Your task to perform on an android device: Open the phone app and click the voicemail tab. Image 0: 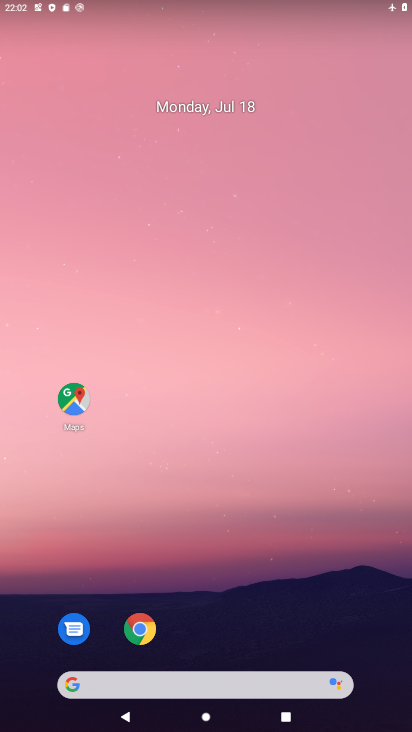
Step 0: drag from (303, 647) to (243, 271)
Your task to perform on an android device: Open the phone app and click the voicemail tab. Image 1: 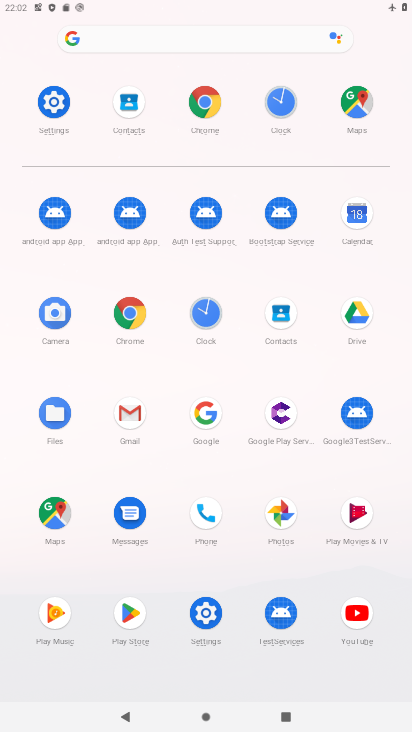
Step 1: click (207, 514)
Your task to perform on an android device: Open the phone app and click the voicemail tab. Image 2: 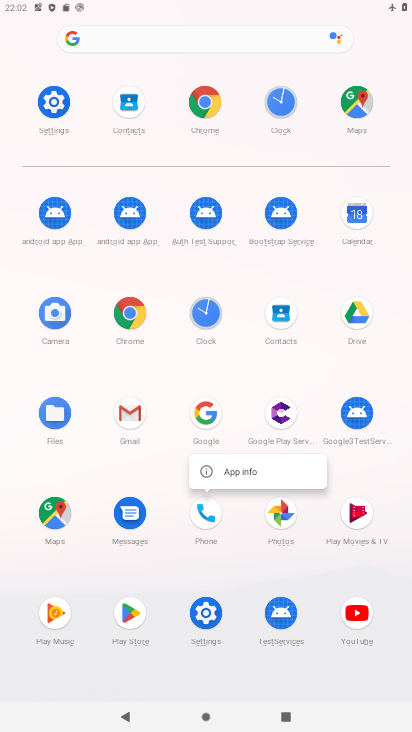
Step 2: click (198, 510)
Your task to perform on an android device: Open the phone app and click the voicemail tab. Image 3: 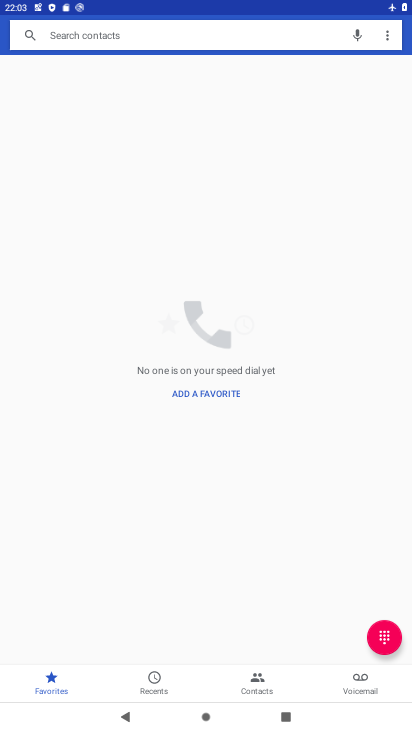
Step 3: click (357, 679)
Your task to perform on an android device: Open the phone app and click the voicemail tab. Image 4: 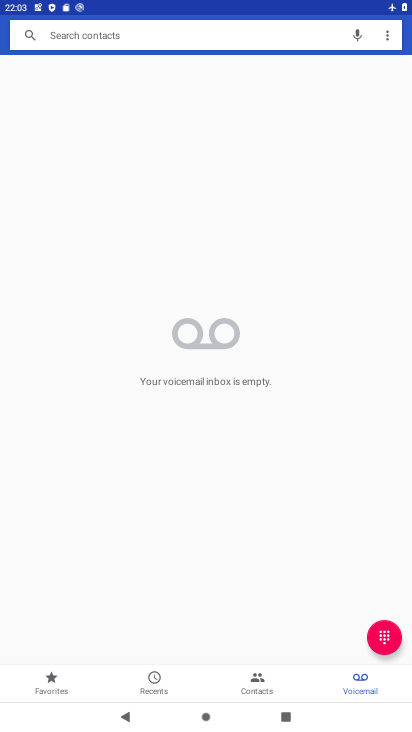
Step 4: task complete